Your task to perform on an android device: Open the phone app and click the voicemail tab. Image 0: 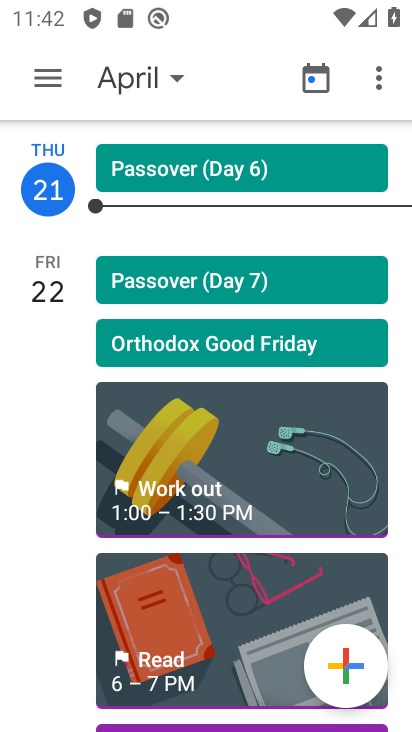
Step 0: press home button
Your task to perform on an android device: Open the phone app and click the voicemail tab. Image 1: 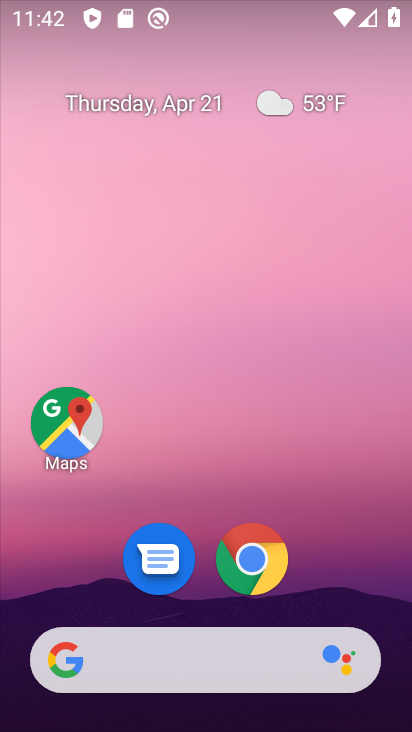
Step 1: drag from (385, 628) to (394, 11)
Your task to perform on an android device: Open the phone app and click the voicemail tab. Image 2: 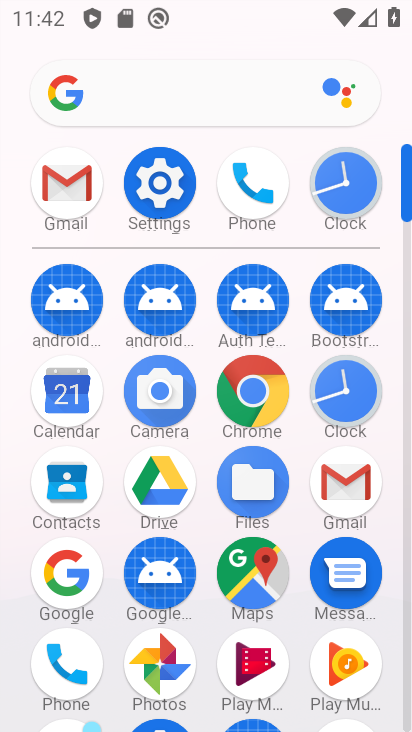
Step 2: click (246, 189)
Your task to perform on an android device: Open the phone app and click the voicemail tab. Image 3: 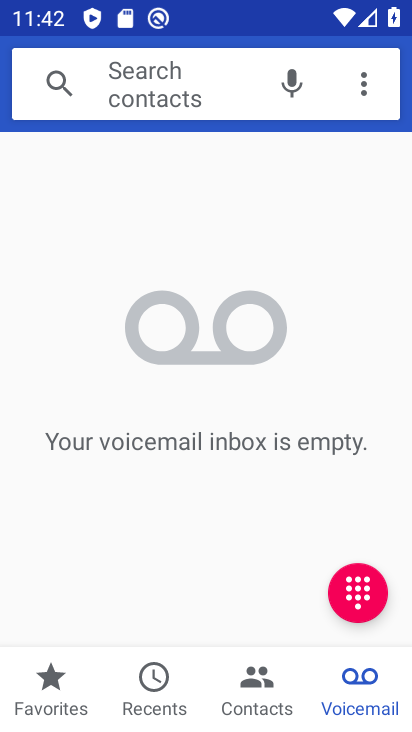
Step 3: click (363, 715)
Your task to perform on an android device: Open the phone app and click the voicemail tab. Image 4: 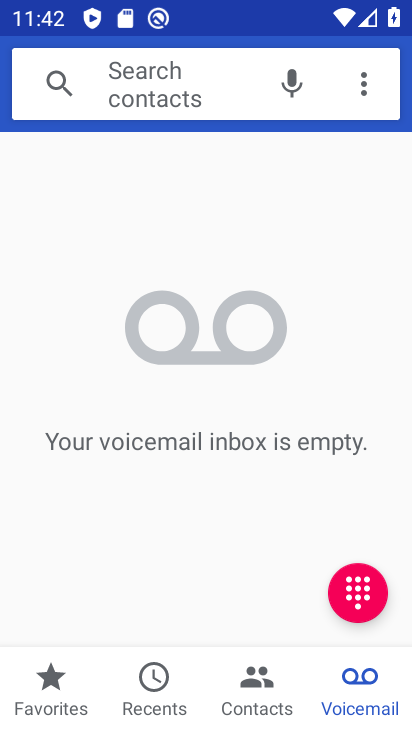
Step 4: task complete